Your task to perform on an android device: turn on sleep mode Image 0: 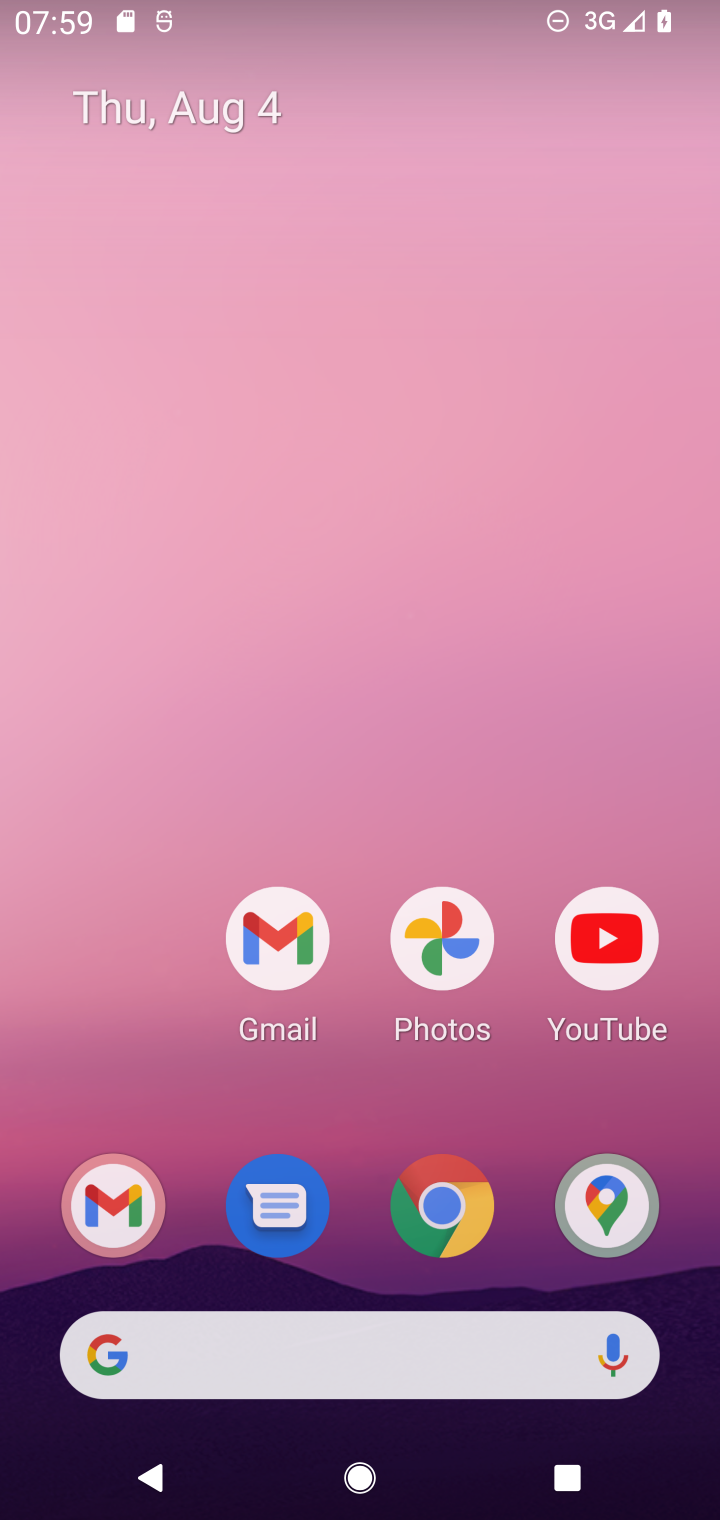
Step 0: press home button
Your task to perform on an android device: turn on sleep mode Image 1: 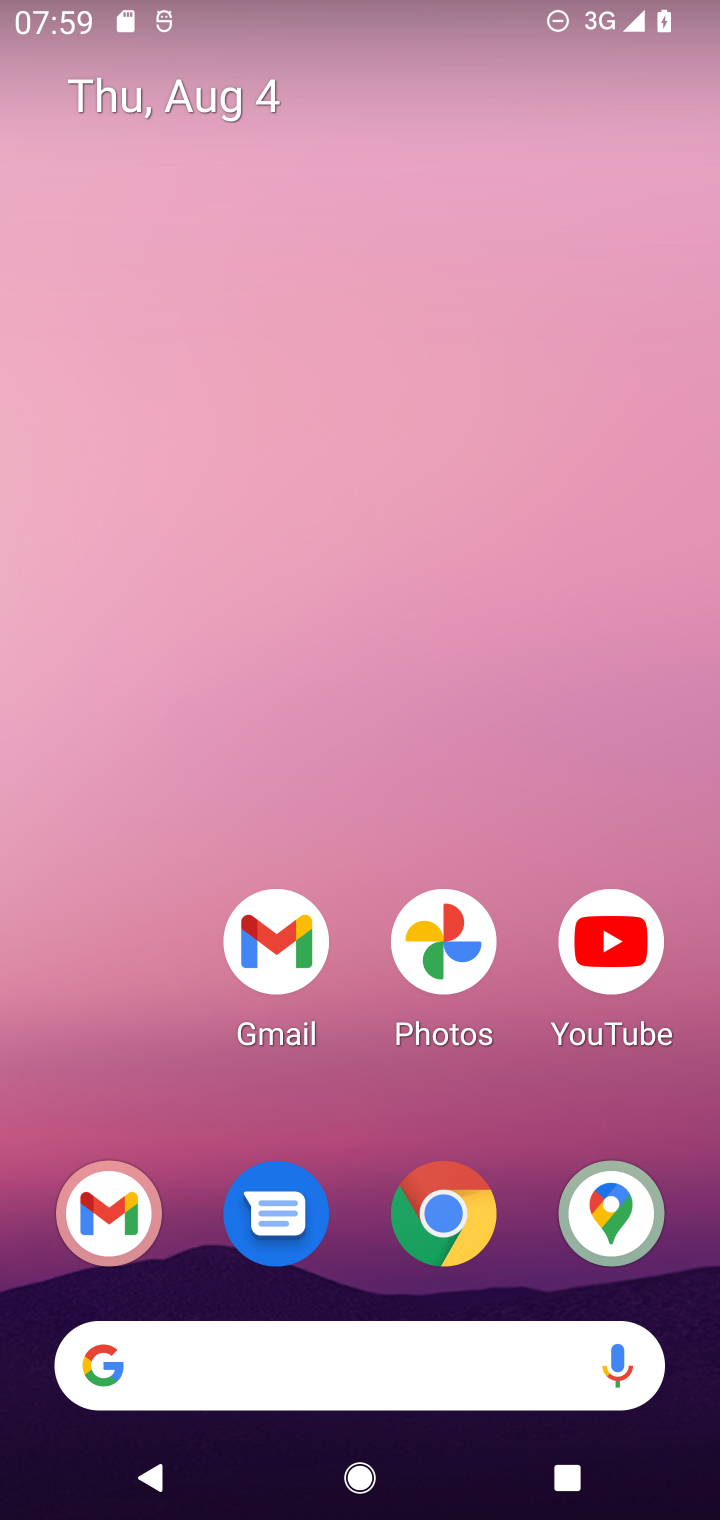
Step 1: drag from (178, 1123) to (149, 523)
Your task to perform on an android device: turn on sleep mode Image 2: 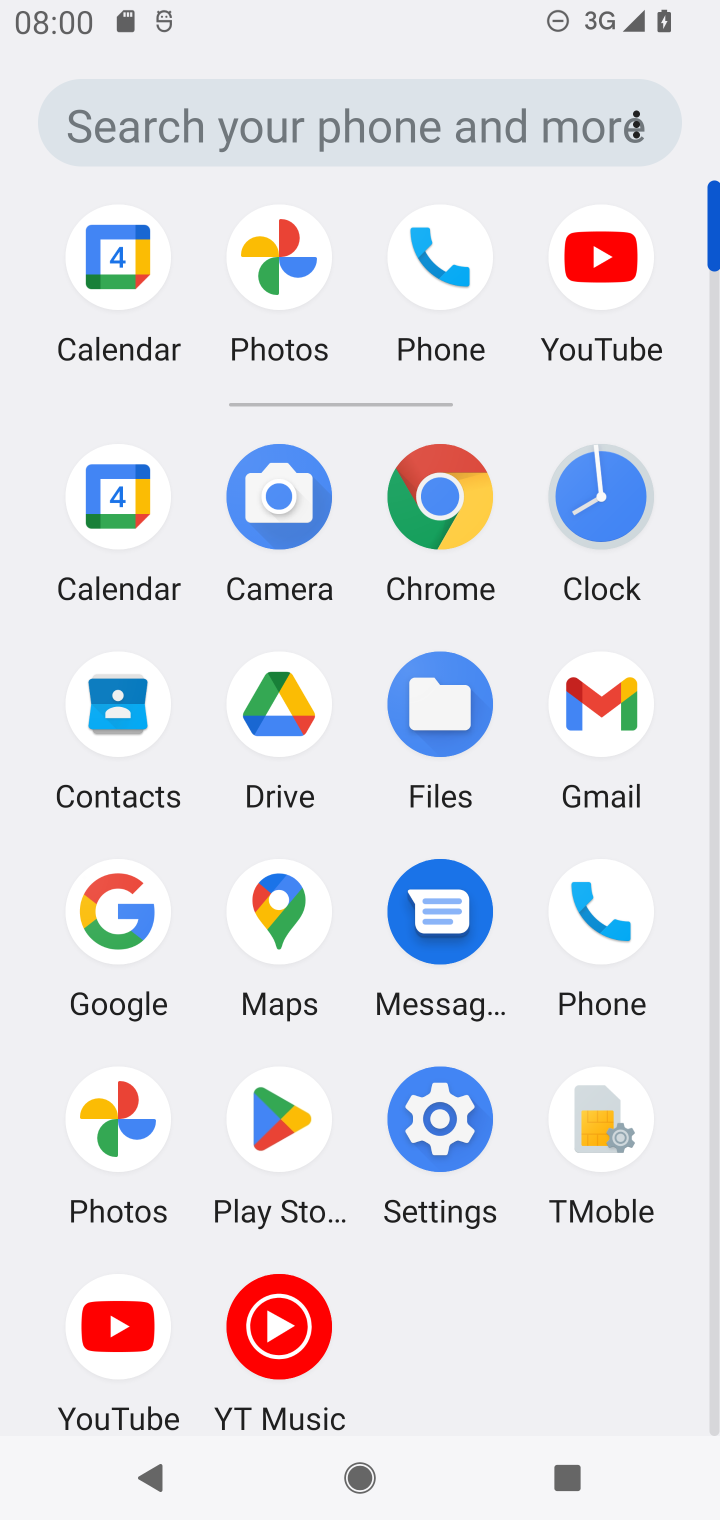
Step 2: click (438, 1117)
Your task to perform on an android device: turn on sleep mode Image 3: 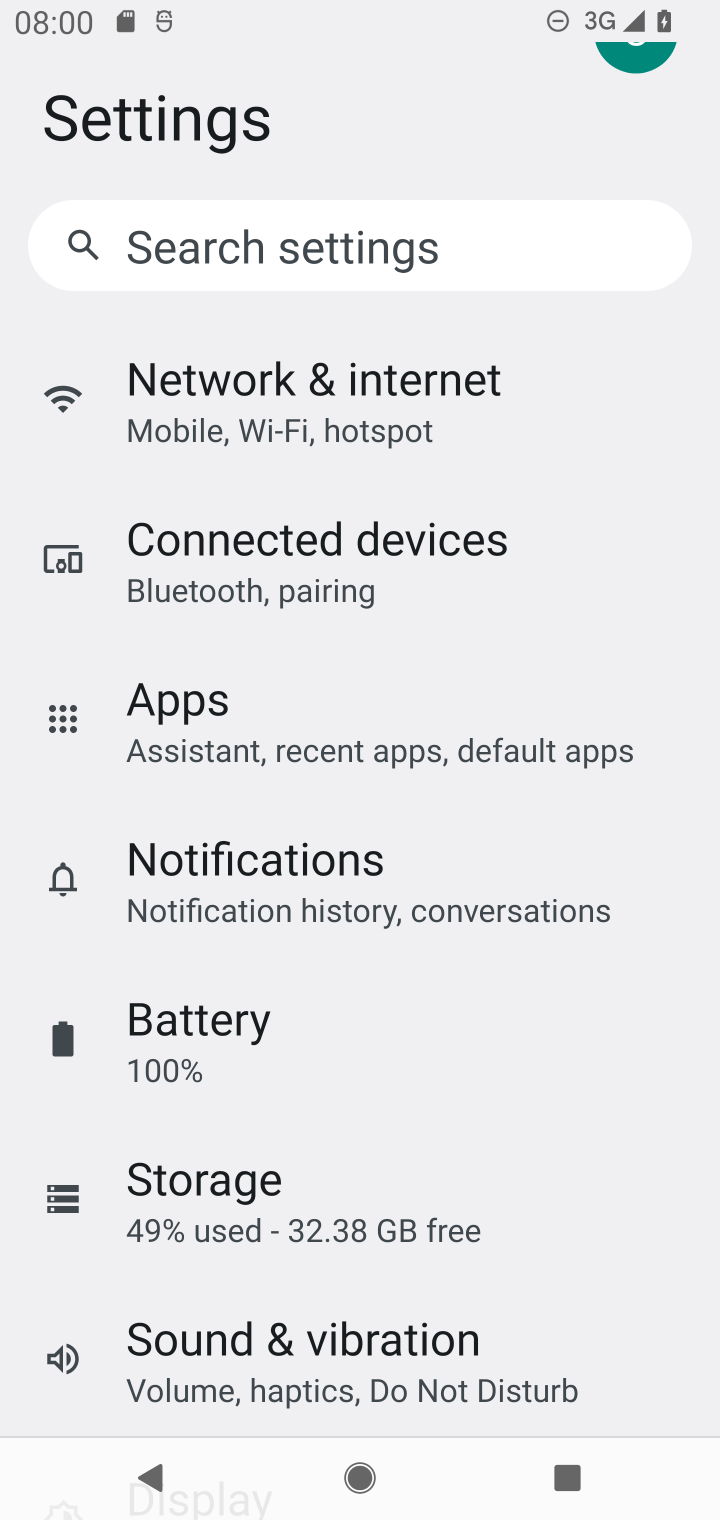
Step 3: drag from (563, 1200) to (609, 954)
Your task to perform on an android device: turn on sleep mode Image 4: 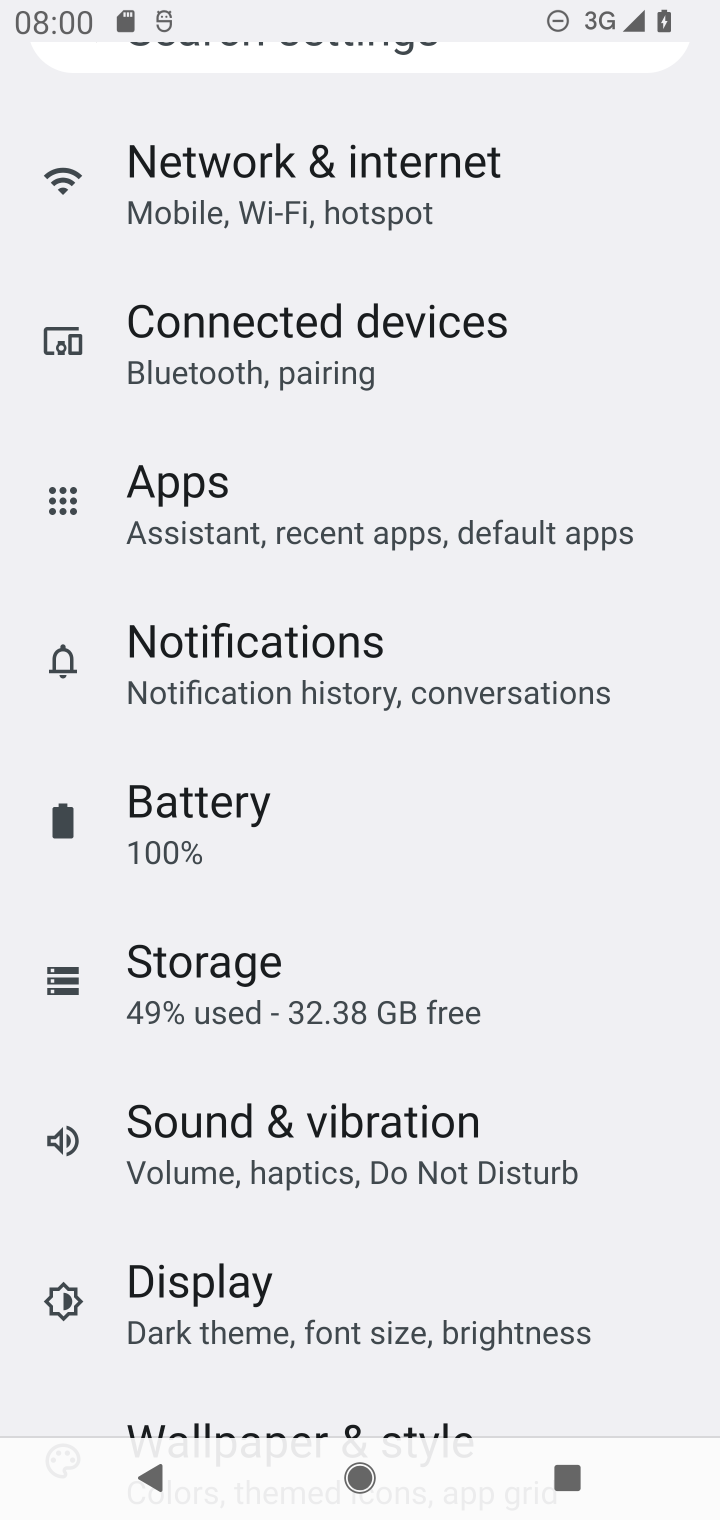
Step 4: drag from (611, 1284) to (614, 1000)
Your task to perform on an android device: turn on sleep mode Image 5: 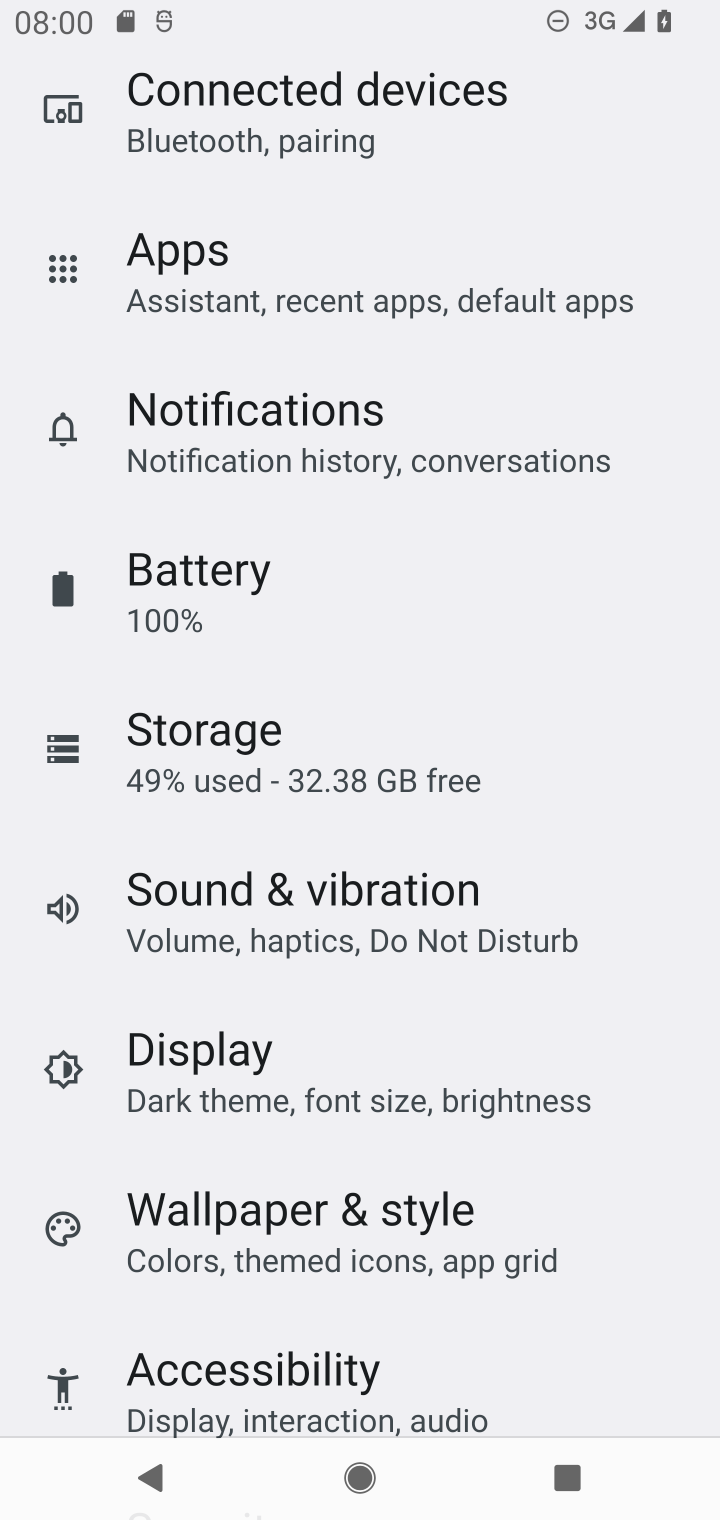
Step 5: drag from (616, 1256) to (625, 933)
Your task to perform on an android device: turn on sleep mode Image 6: 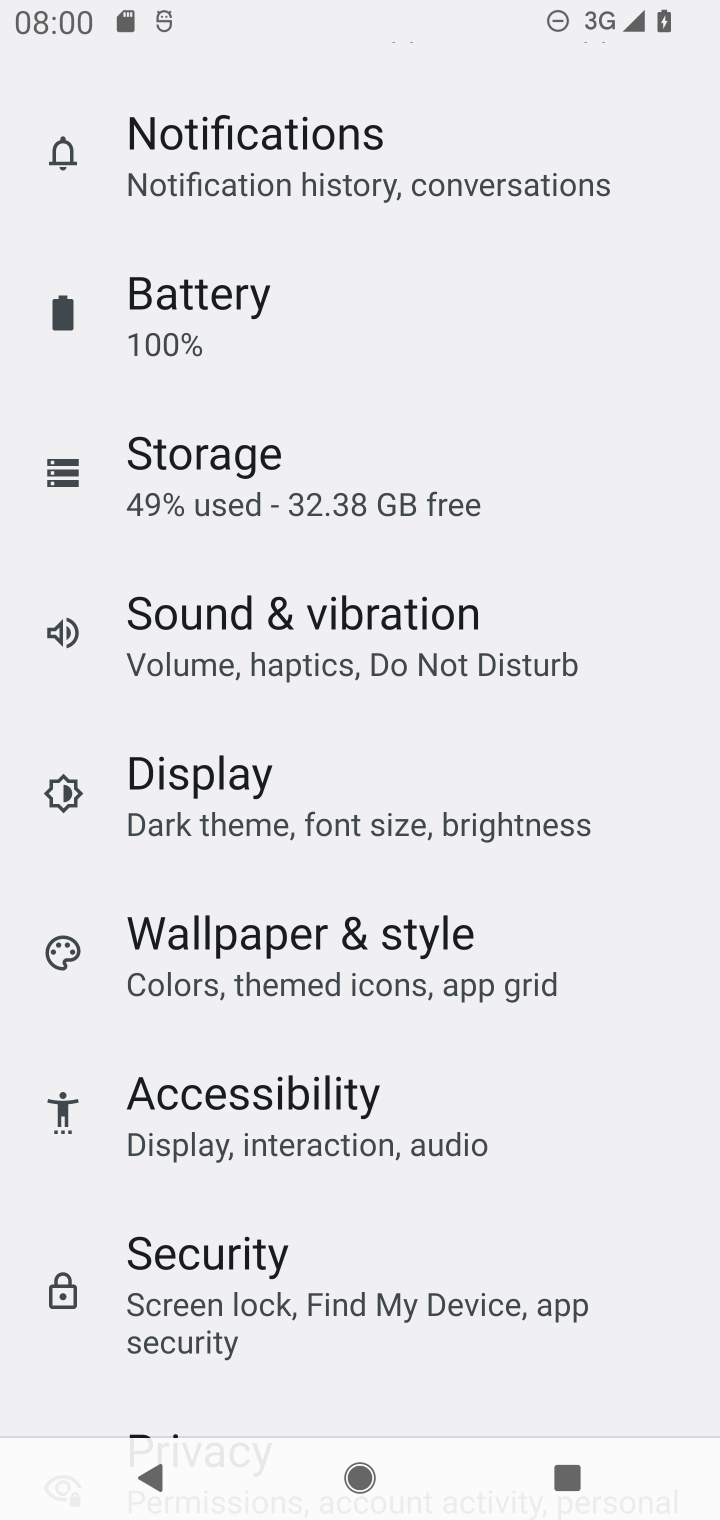
Step 6: click (453, 822)
Your task to perform on an android device: turn on sleep mode Image 7: 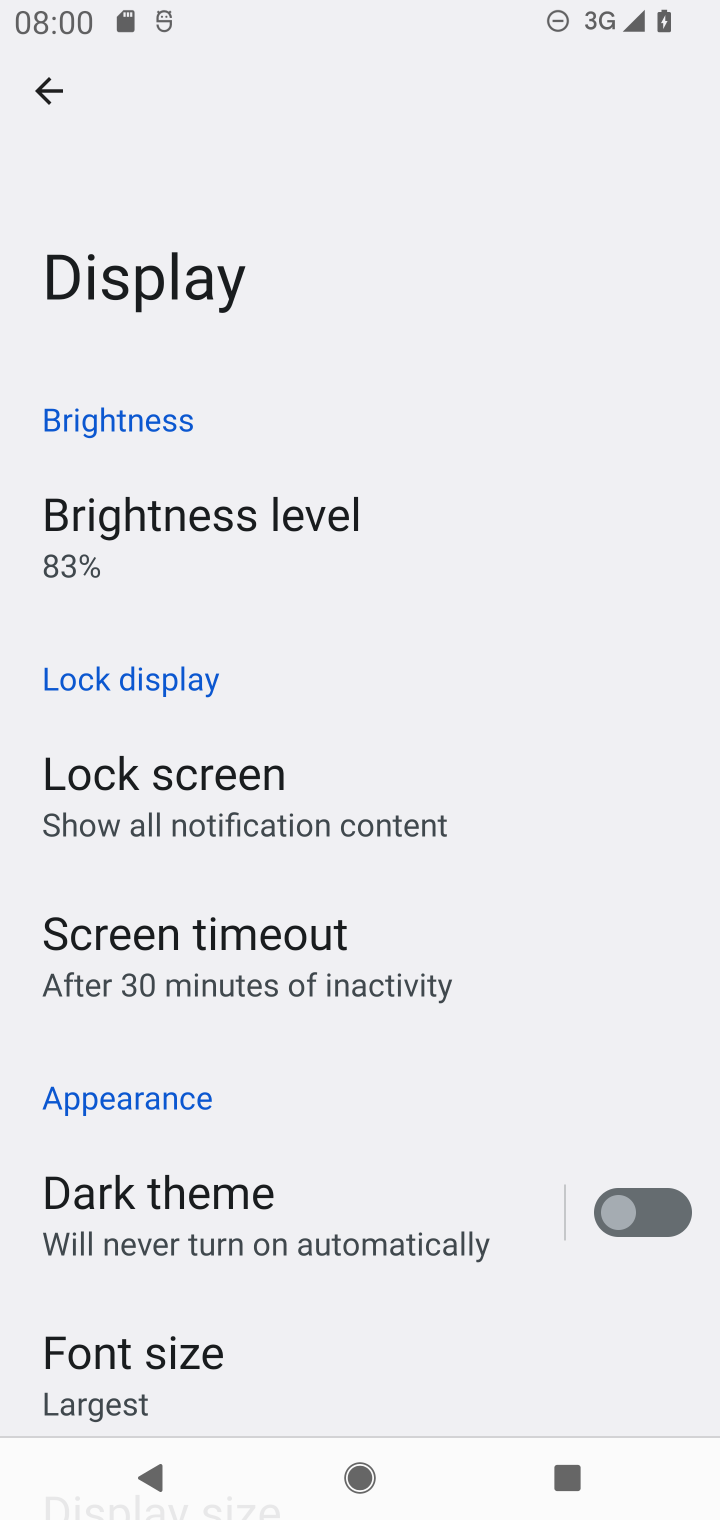
Step 7: task complete